Your task to perform on an android device: change the clock display to digital Image 0: 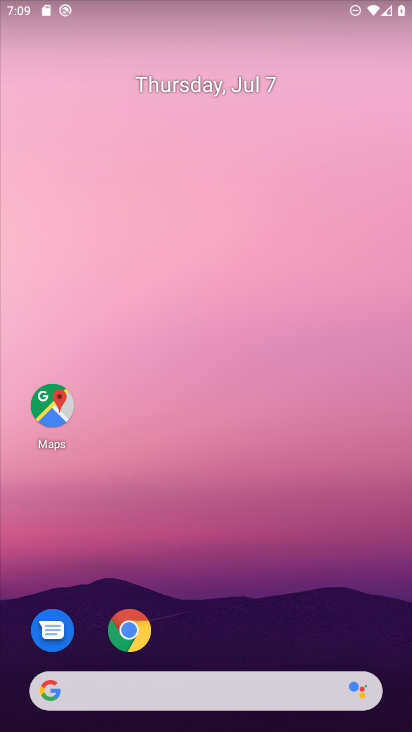
Step 0: drag from (236, 588) to (194, 93)
Your task to perform on an android device: change the clock display to digital Image 1: 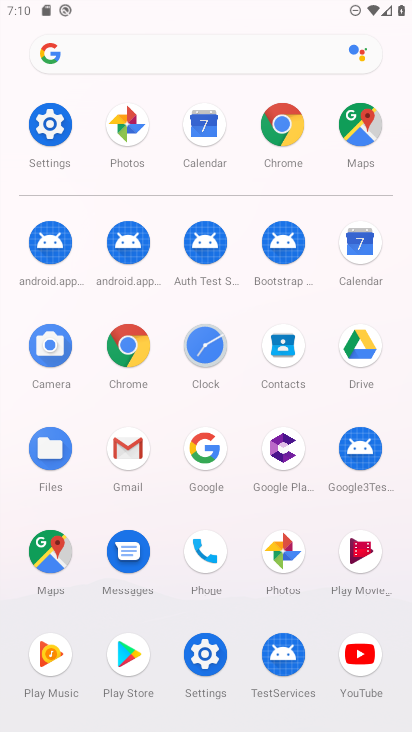
Step 1: click (209, 343)
Your task to perform on an android device: change the clock display to digital Image 2: 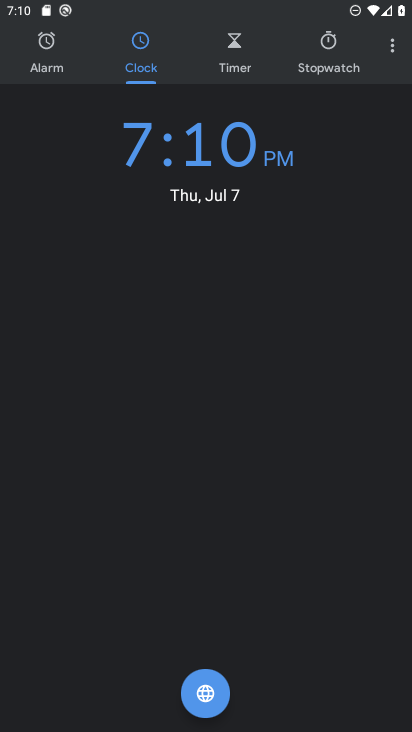
Step 2: click (394, 52)
Your task to perform on an android device: change the clock display to digital Image 3: 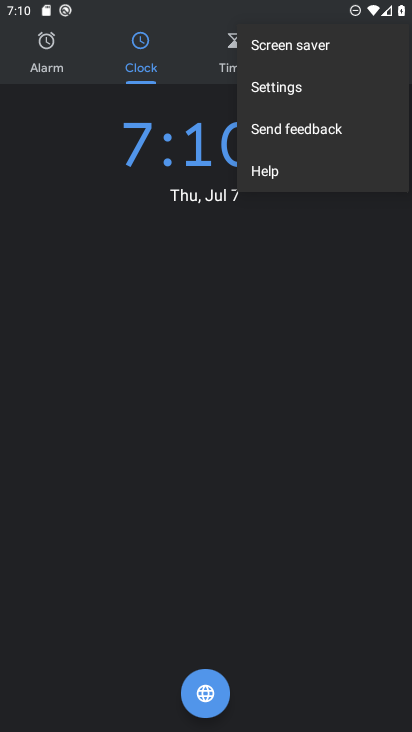
Step 3: click (283, 89)
Your task to perform on an android device: change the clock display to digital Image 4: 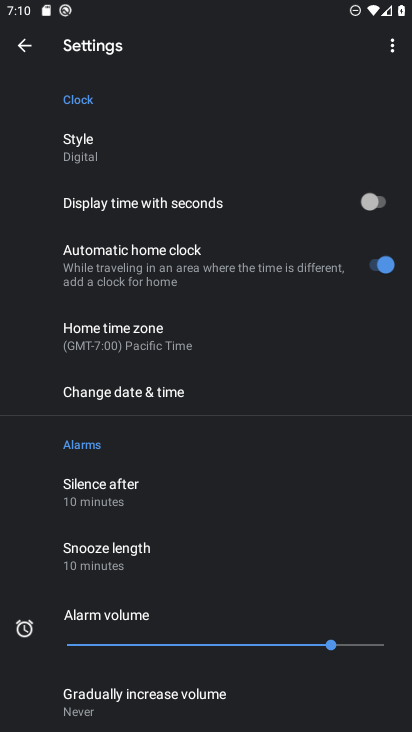
Step 4: task complete